Your task to perform on an android device: snooze an email in the gmail app Image 0: 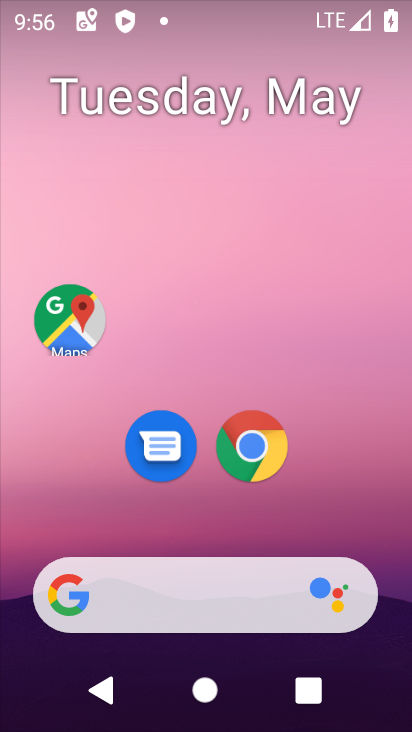
Step 0: drag from (156, 582) to (111, 20)
Your task to perform on an android device: snooze an email in the gmail app Image 1: 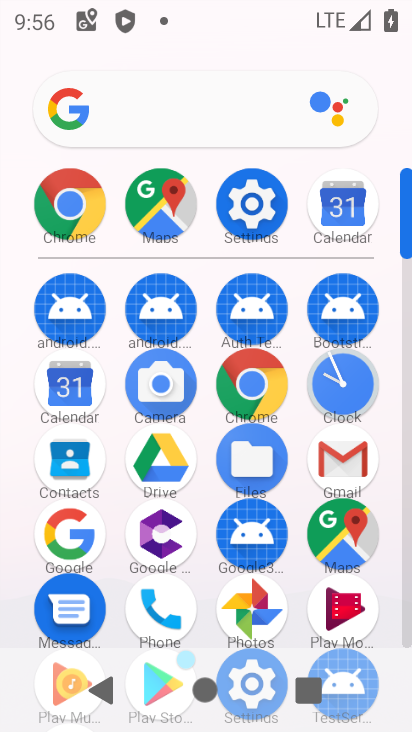
Step 1: click (316, 467)
Your task to perform on an android device: snooze an email in the gmail app Image 2: 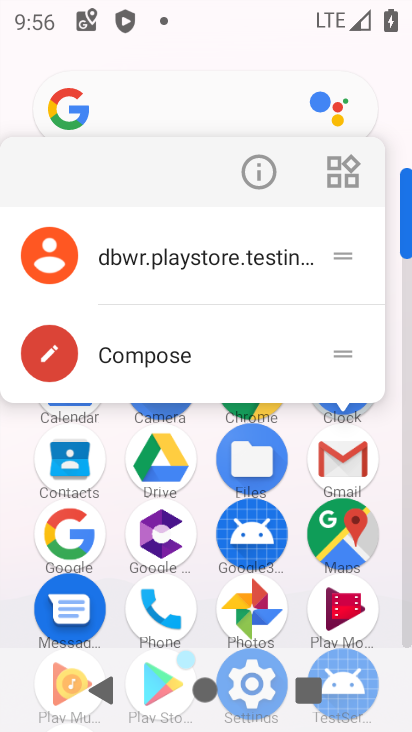
Step 2: click (337, 470)
Your task to perform on an android device: snooze an email in the gmail app Image 3: 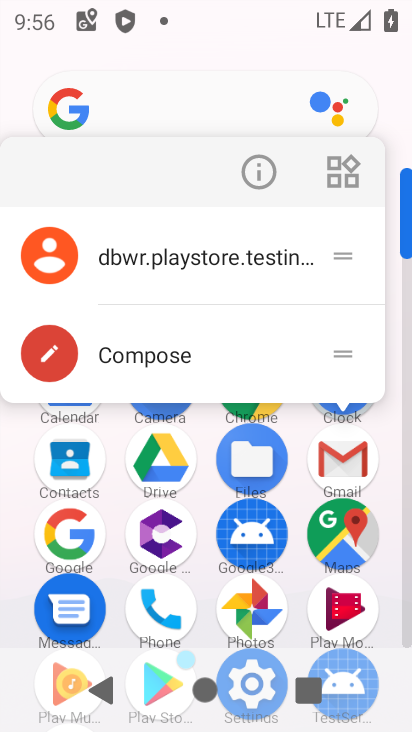
Step 3: click (344, 452)
Your task to perform on an android device: snooze an email in the gmail app Image 4: 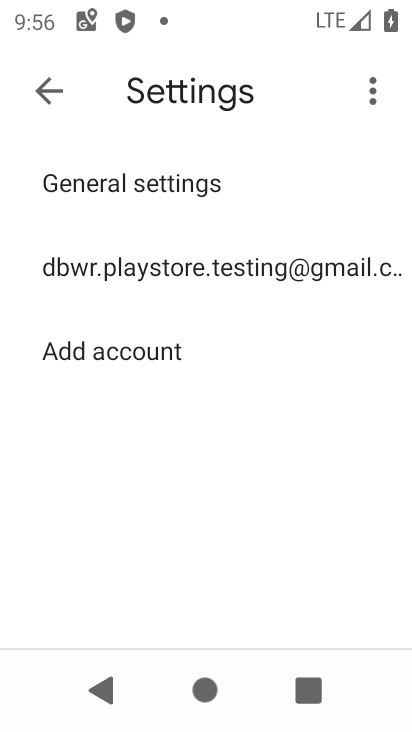
Step 4: click (40, 84)
Your task to perform on an android device: snooze an email in the gmail app Image 5: 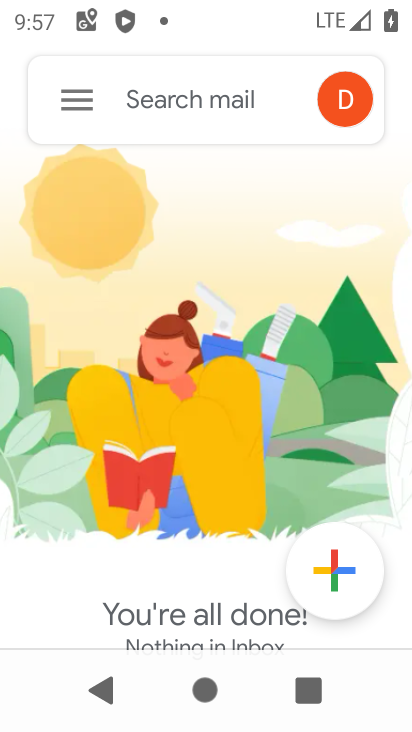
Step 5: click (72, 108)
Your task to perform on an android device: snooze an email in the gmail app Image 6: 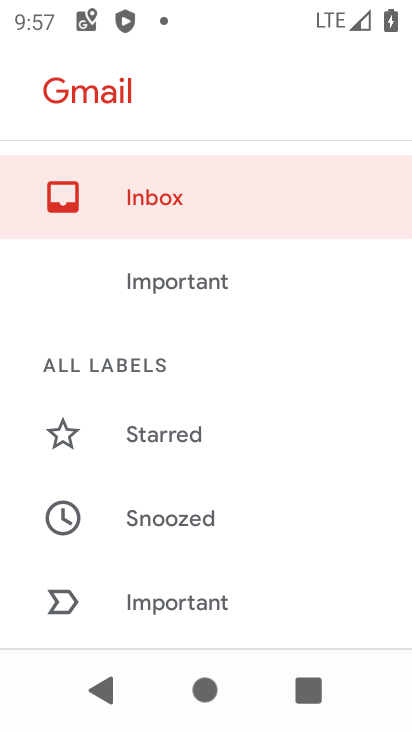
Step 6: drag from (163, 506) to (152, 122)
Your task to perform on an android device: snooze an email in the gmail app Image 7: 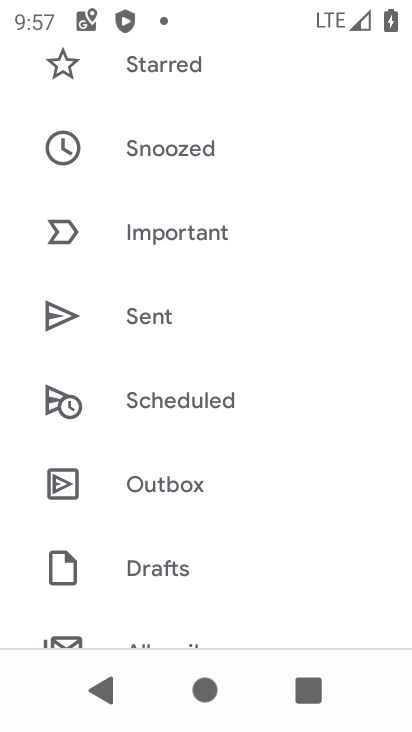
Step 7: drag from (176, 572) to (138, 198)
Your task to perform on an android device: snooze an email in the gmail app Image 8: 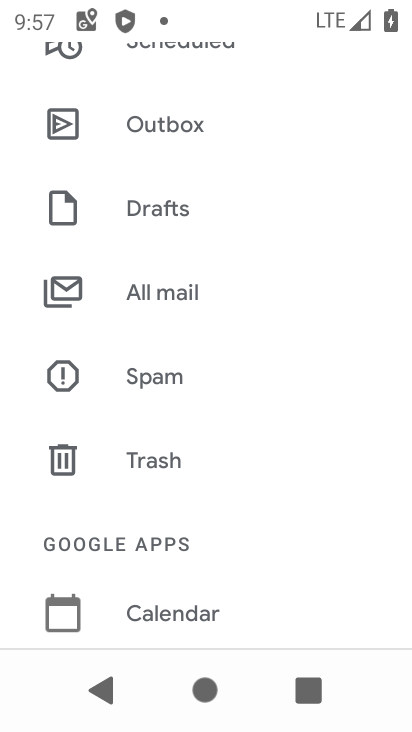
Step 8: click (138, 303)
Your task to perform on an android device: snooze an email in the gmail app Image 9: 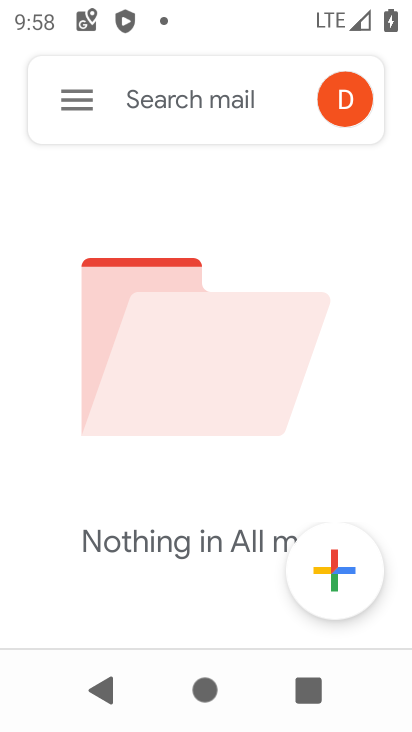
Step 9: task complete